Your task to perform on an android device: open app "Microsoft Authenticator" Image 0: 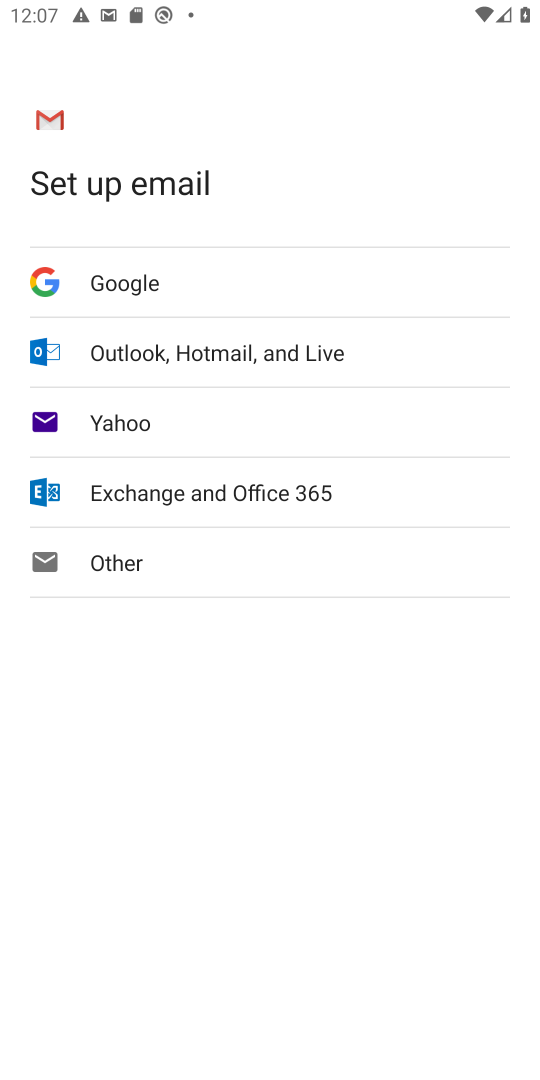
Step 0: press home button
Your task to perform on an android device: open app "Microsoft Authenticator" Image 1: 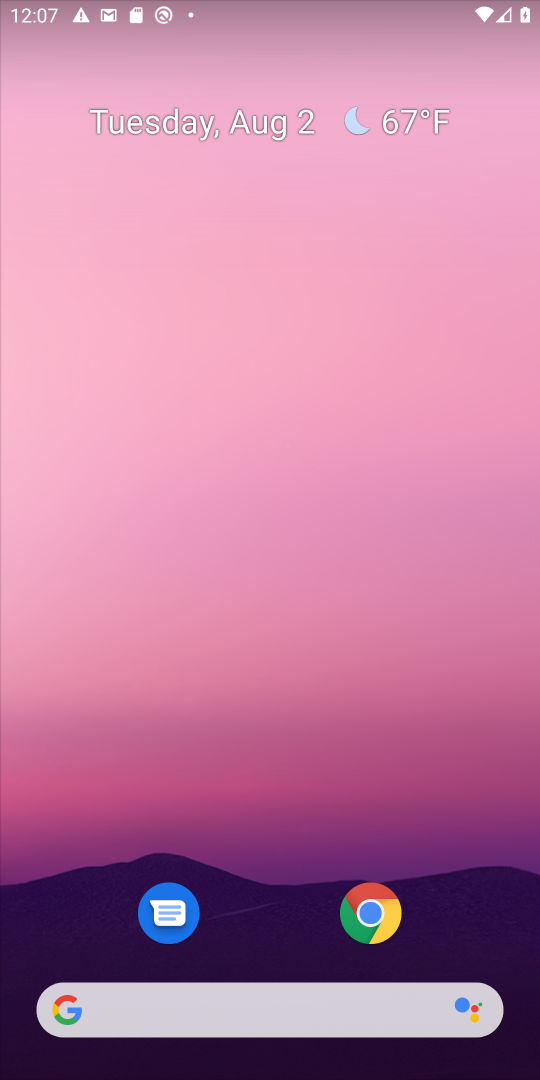
Step 1: drag from (495, 875) to (487, 253)
Your task to perform on an android device: open app "Microsoft Authenticator" Image 2: 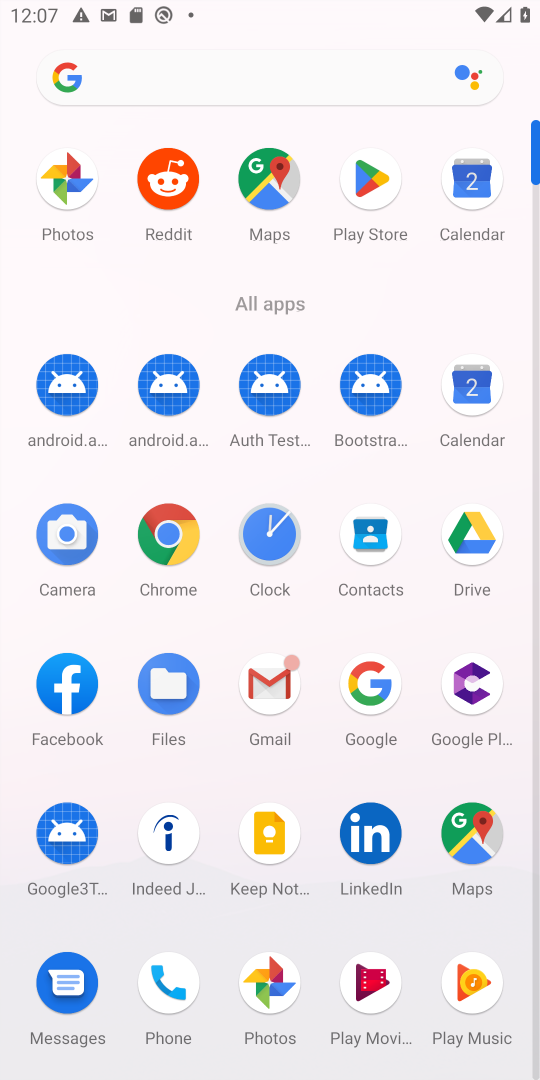
Step 2: click (366, 191)
Your task to perform on an android device: open app "Microsoft Authenticator" Image 3: 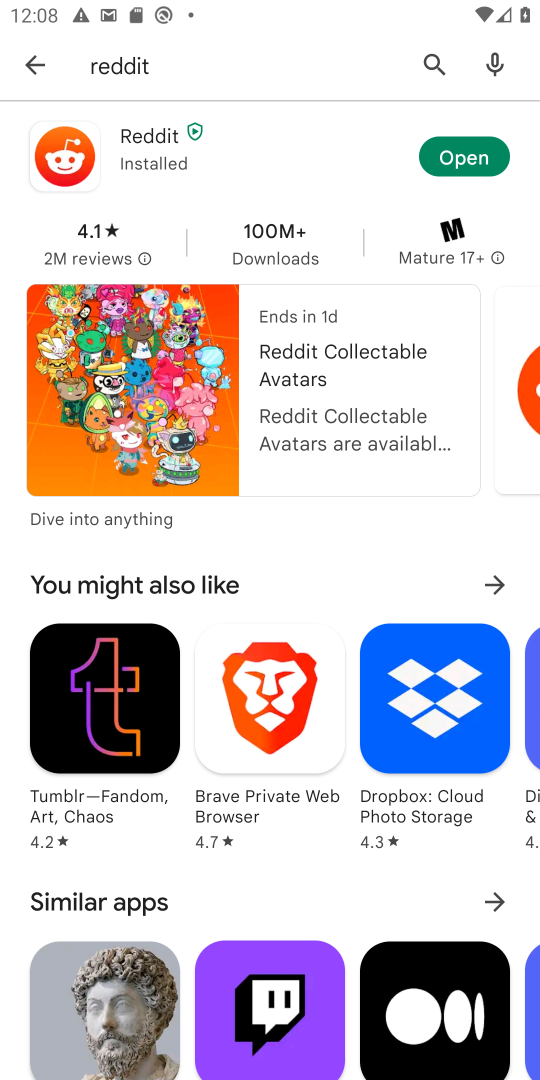
Step 3: press home button
Your task to perform on an android device: open app "Microsoft Authenticator" Image 4: 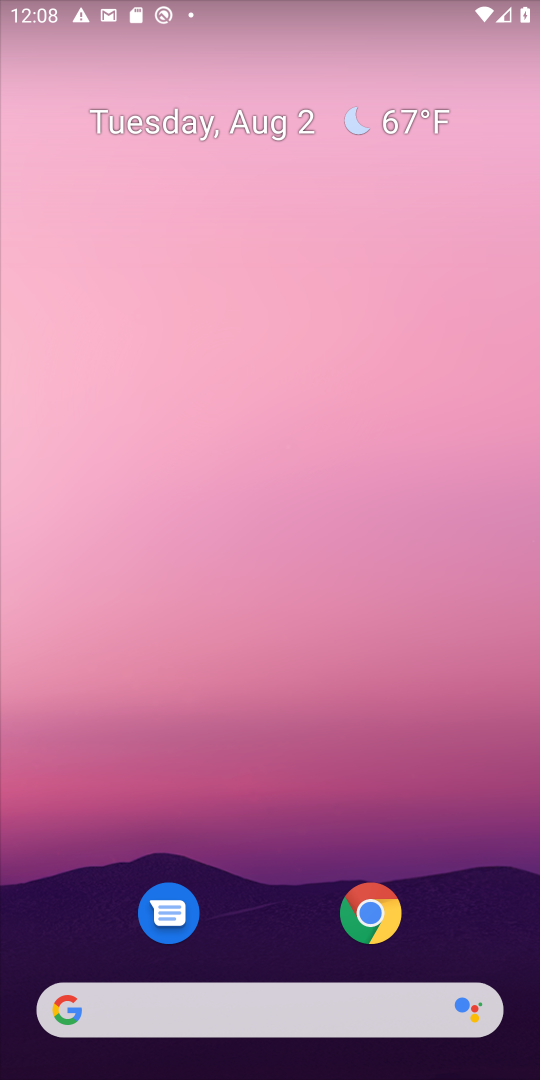
Step 4: drag from (506, 964) to (379, 112)
Your task to perform on an android device: open app "Microsoft Authenticator" Image 5: 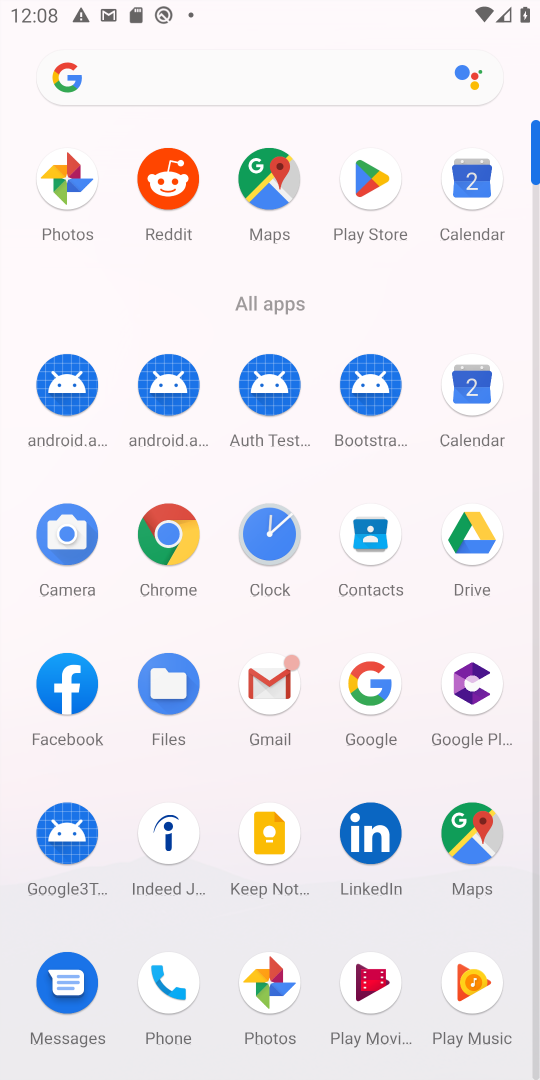
Step 5: click (376, 189)
Your task to perform on an android device: open app "Microsoft Authenticator" Image 6: 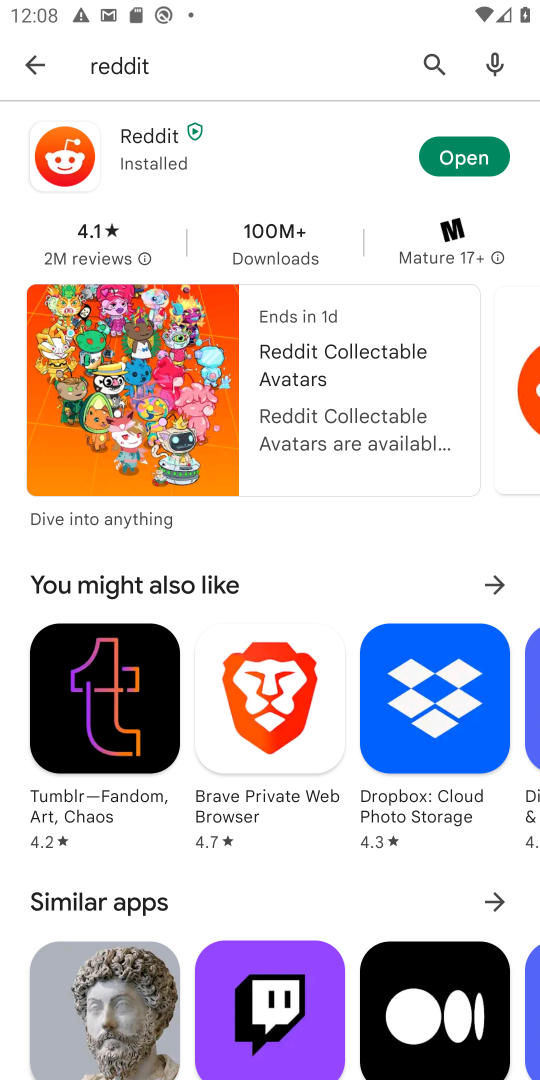
Step 6: click (427, 60)
Your task to perform on an android device: open app "Microsoft Authenticator" Image 7: 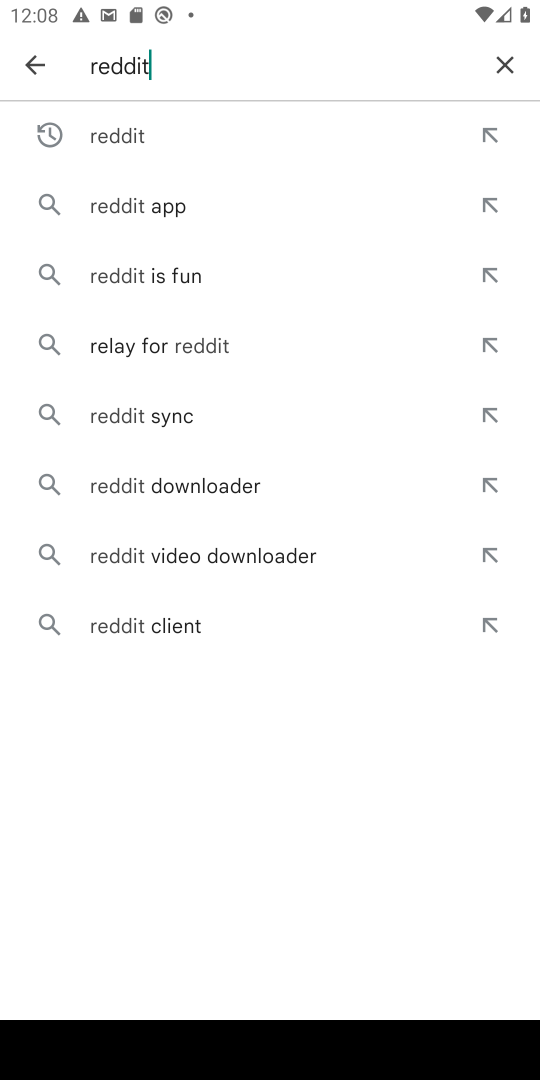
Step 7: click (514, 61)
Your task to perform on an android device: open app "Microsoft Authenticator" Image 8: 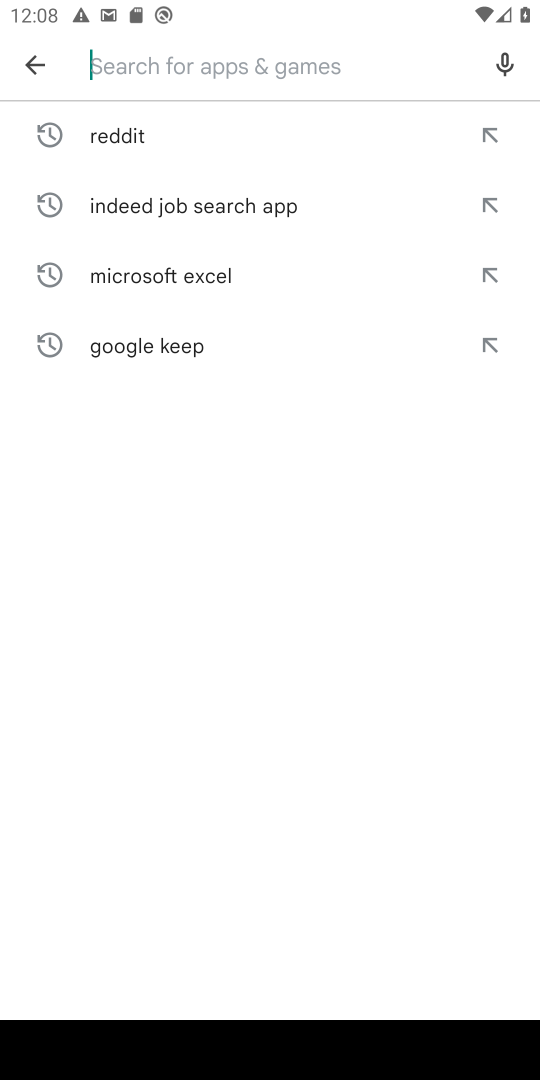
Step 8: type "Microsoft Authenticator"
Your task to perform on an android device: open app "Microsoft Authenticator" Image 9: 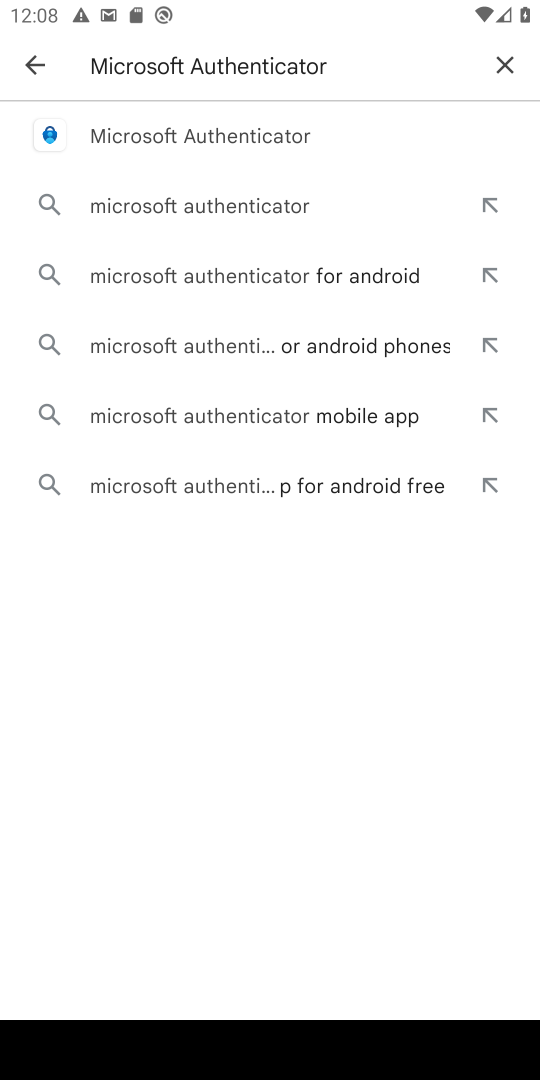
Step 9: click (151, 130)
Your task to perform on an android device: open app "Microsoft Authenticator" Image 10: 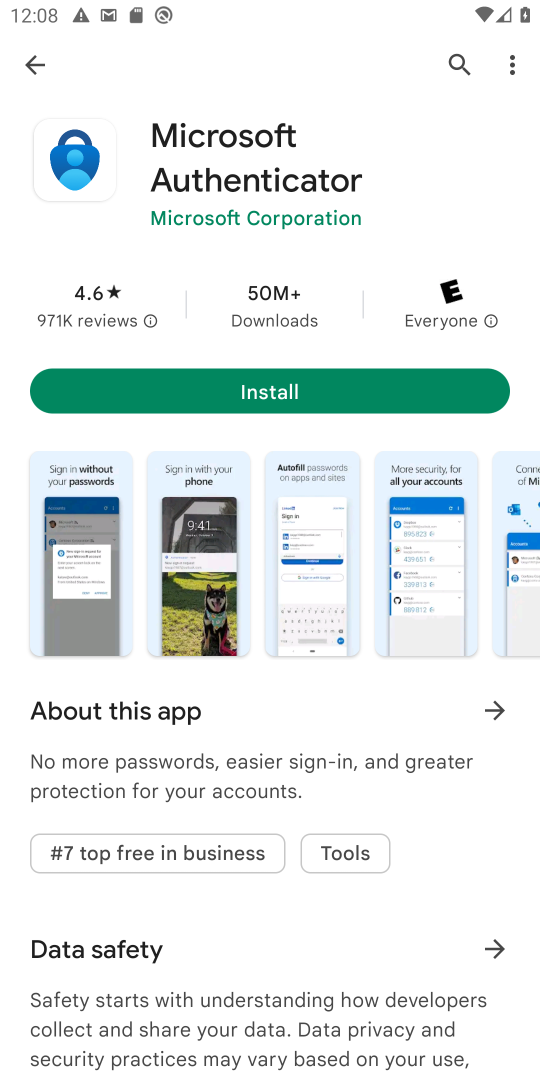
Step 10: task complete